Your task to perform on an android device: search for starred emails in the gmail app Image 0: 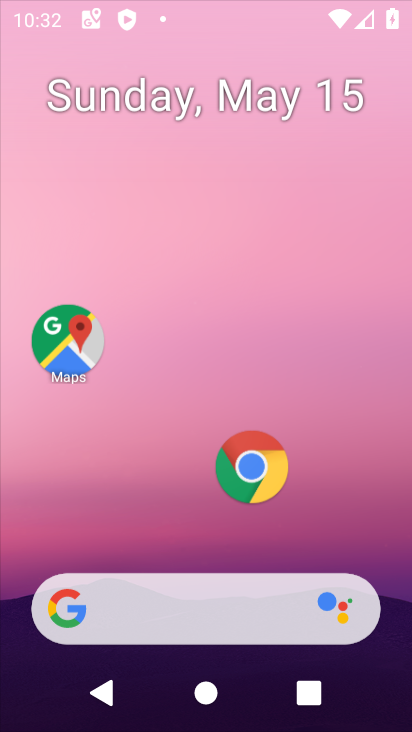
Step 0: drag from (226, 293) to (232, 124)
Your task to perform on an android device: search for starred emails in the gmail app Image 1: 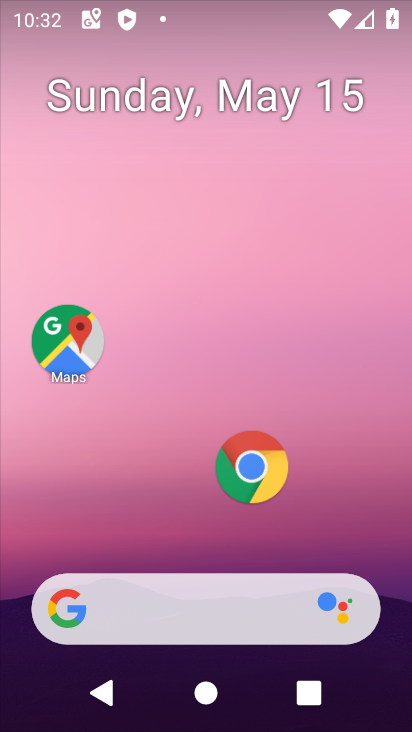
Step 1: drag from (190, 528) to (169, 5)
Your task to perform on an android device: search for starred emails in the gmail app Image 2: 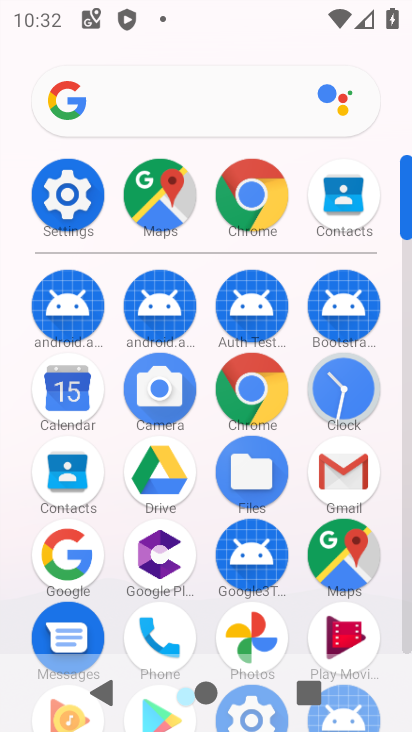
Step 2: click (364, 465)
Your task to perform on an android device: search for starred emails in the gmail app Image 3: 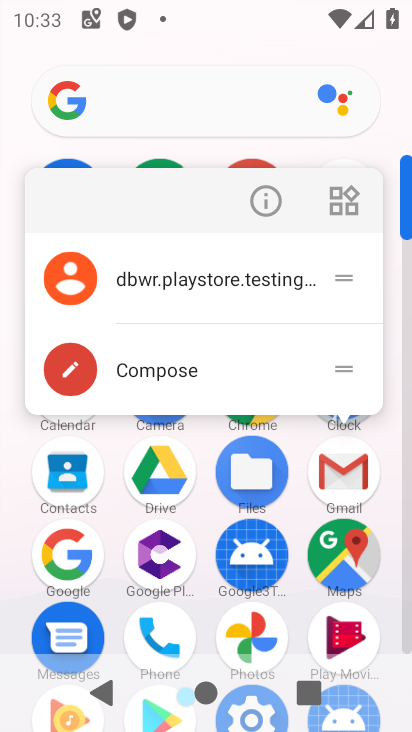
Step 3: click (195, 275)
Your task to perform on an android device: search for starred emails in the gmail app Image 4: 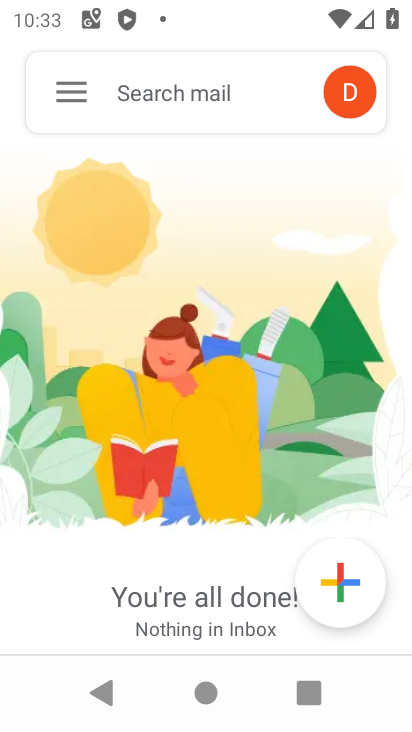
Step 4: drag from (132, 566) to (122, 302)
Your task to perform on an android device: search for starred emails in the gmail app Image 5: 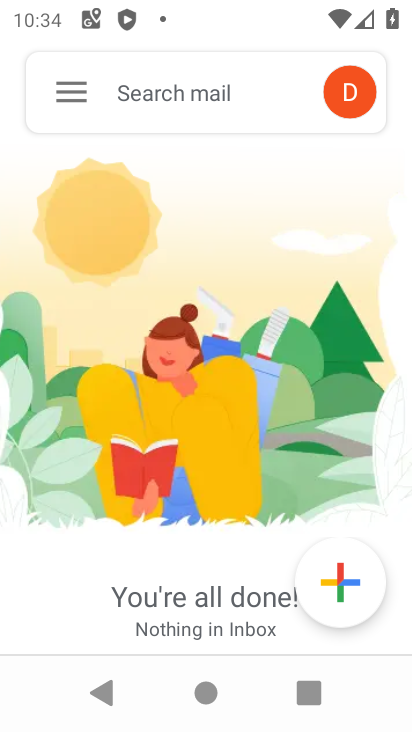
Step 5: click (76, 92)
Your task to perform on an android device: search for starred emails in the gmail app Image 6: 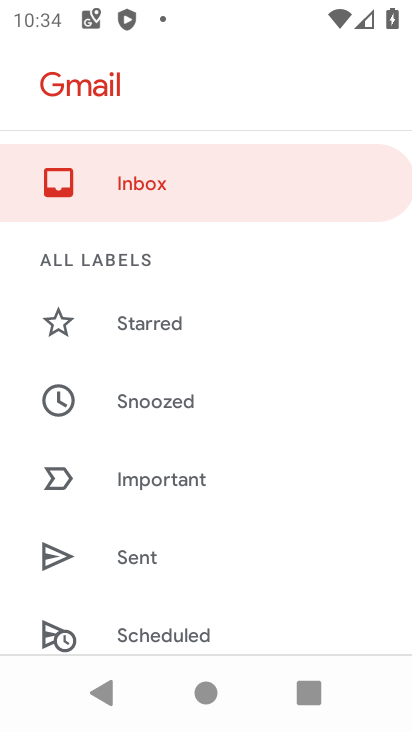
Step 6: drag from (99, 593) to (110, 22)
Your task to perform on an android device: search for starred emails in the gmail app Image 7: 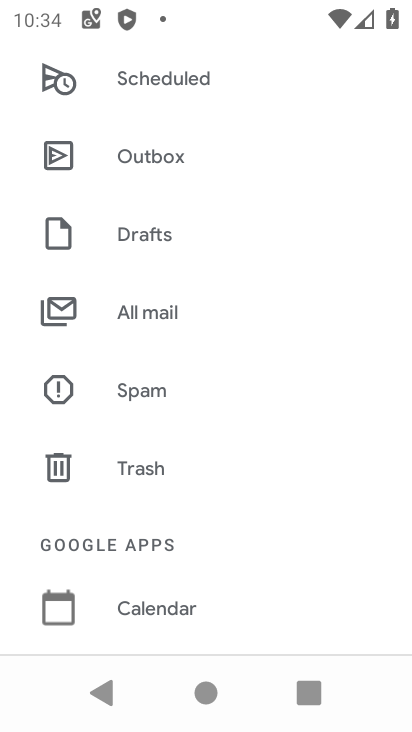
Step 7: drag from (164, 567) to (170, 4)
Your task to perform on an android device: search for starred emails in the gmail app Image 8: 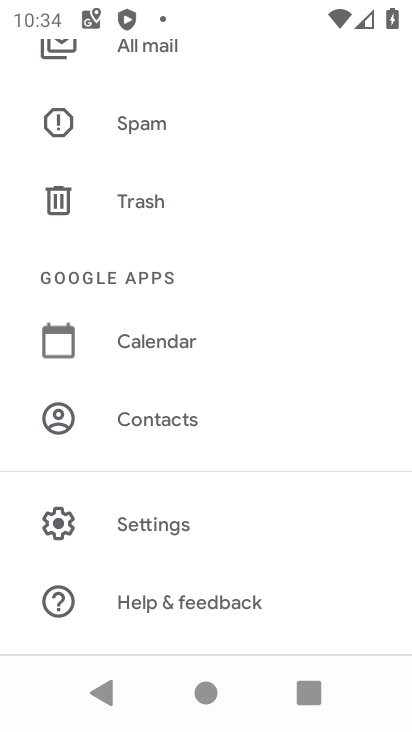
Step 8: click (129, 523)
Your task to perform on an android device: search for starred emails in the gmail app Image 9: 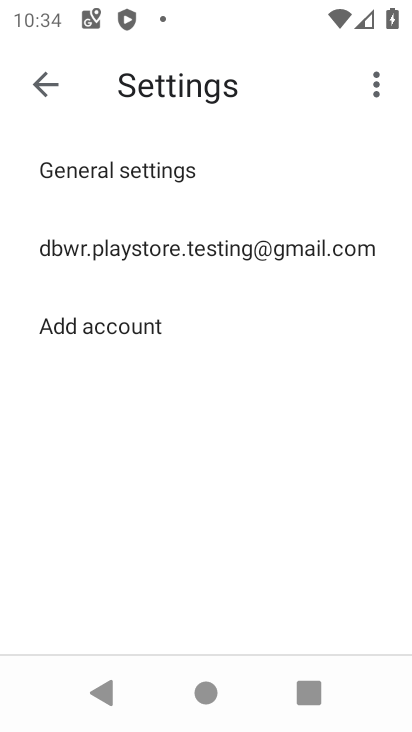
Step 9: click (179, 228)
Your task to perform on an android device: search for starred emails in the gmail app Image 10: 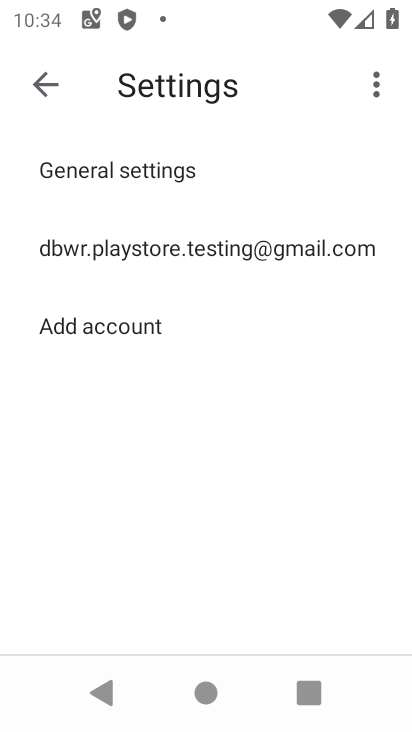
Step 10: click (179, 228)
Your task to perform on an android device: search for starred emails in the gmail app Image 11: 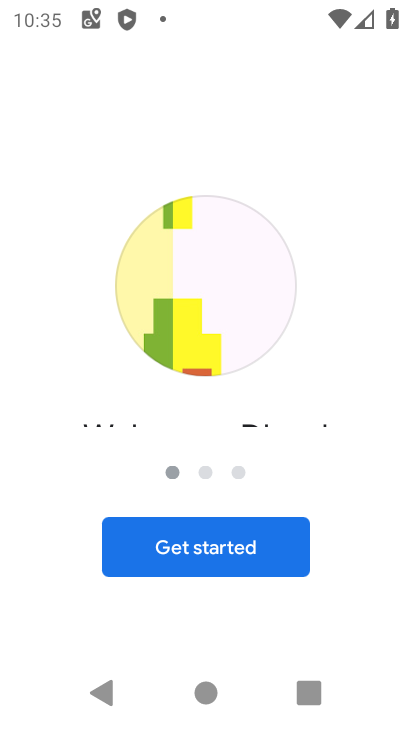
Step 11: press back button
Your task to perform on an android device: search for starred emails in the gmail app Image 12: 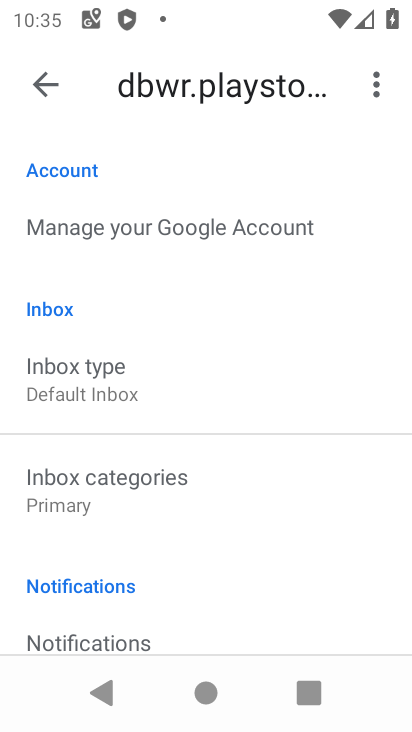
Step 12: drag from (193, 548) to (232, 208)
Your task to perform on an android device: search for starred emails in the gmail app Image 13: 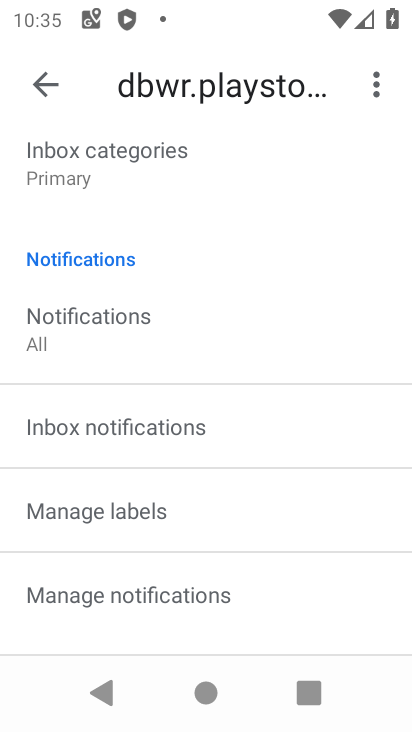
Step 13: click (26, 71)
Your task to perform on an android device: search for starred emails in the gmail app Image 14: 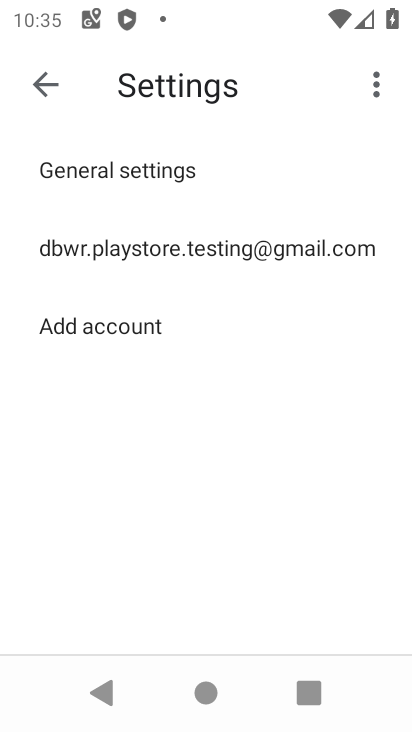
Step 14: click (41, 76)
Your task to perform on an android device: search for starred emails in the gmail app Image 15: 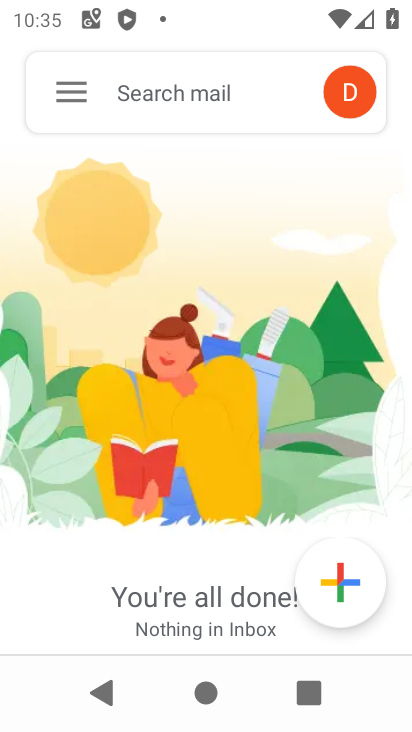
Step 15: task complete